Your task to perform on an android device: find photos in the google photos app Image 0: 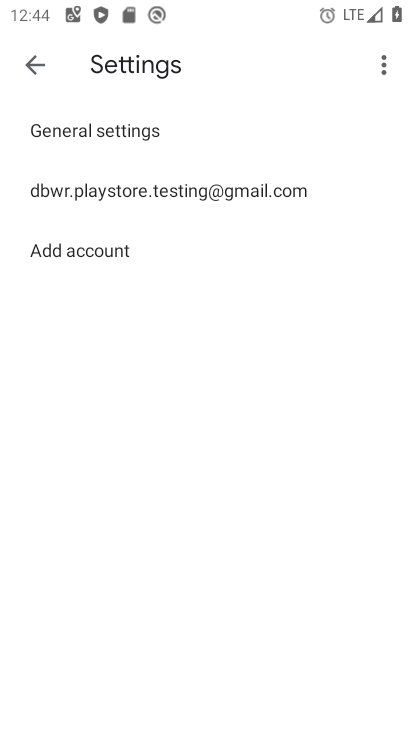
Step 0: press home button
Your task to perform on an android device: find photos in the google photos app Image 1: 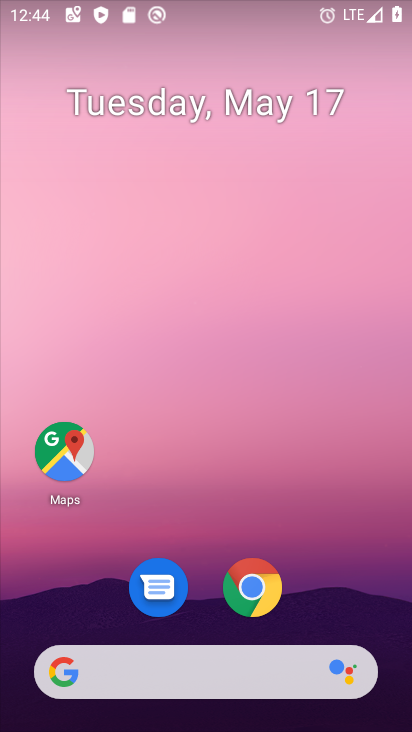
Step 1: drag from (398, 661) to (245, 103)
Your task to perform on an android device: find photos in the google photos app Image 2: 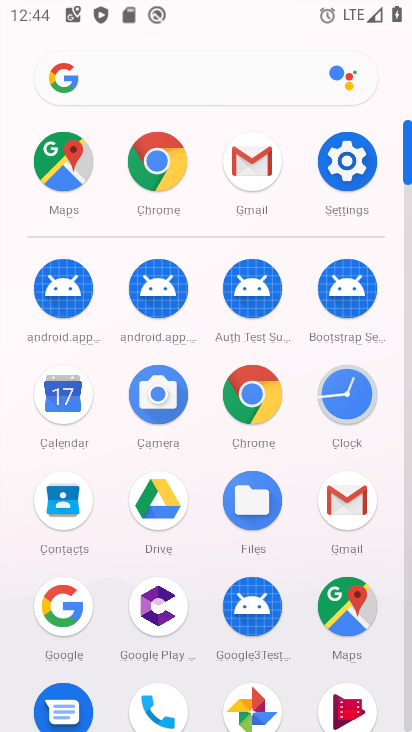
Step 2: click (269, 703)
Your task to perform on an android device: find photos in the google photos app Image 3: 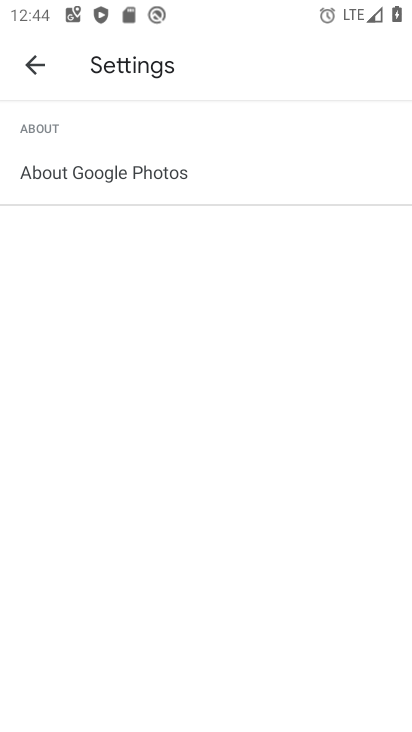
Step 3: task complete